Your task to perform on an android device: Open the Play Movies app and select the watchlist tab. Image 0: 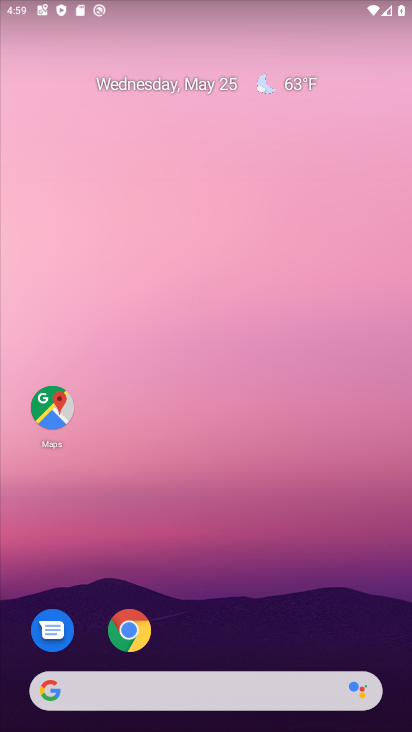
Step 0: drag from (215, 651) to (250, 96)
Your task to perform on an android device: Open the Play Movies app and select the watchlist tab. Image 1: 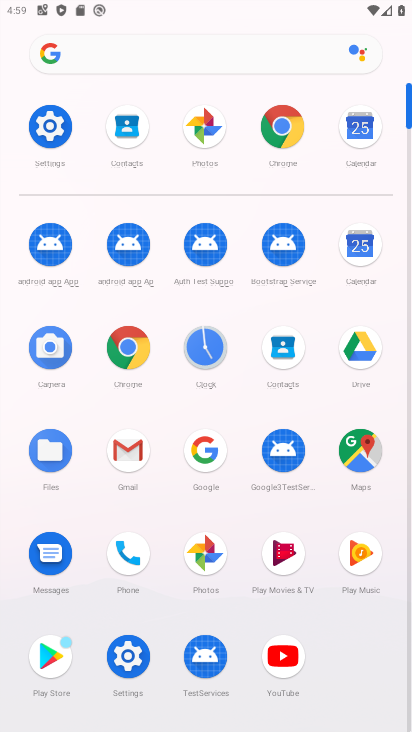
Step 1: click (288, 546)
Your task to perform on an android device: Open the Play Movies app and select the watchlist tab. Image 2: 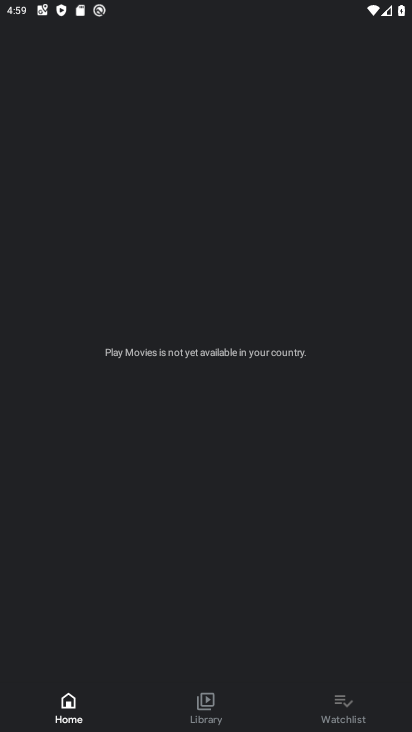
Step 2: click (349, 710)
Your task to perform on an android device: Open the Play Movies app and select the watchlist tab. Image 3: 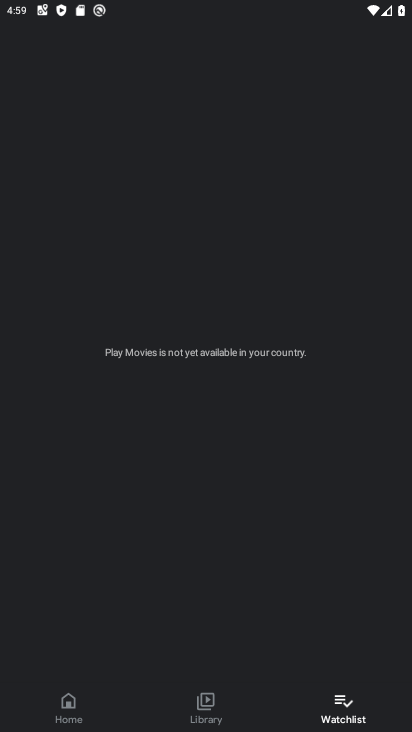
Step 3: task complete